Your task to perform on an android device: turn notification dots off Image 0: 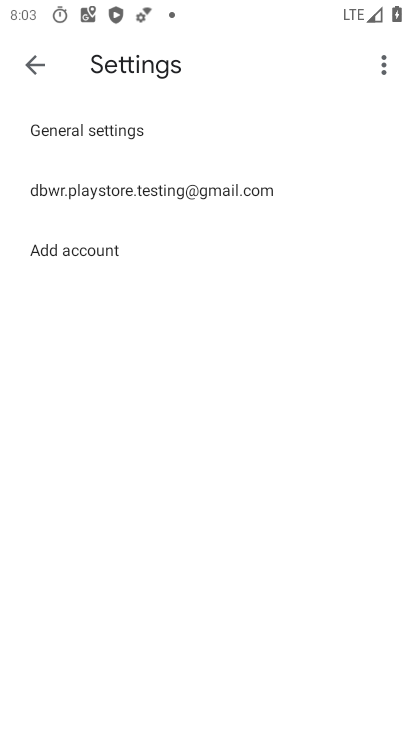
Step 0: press home button
Your task to perform on an android device: turn notification dots off Image 1: 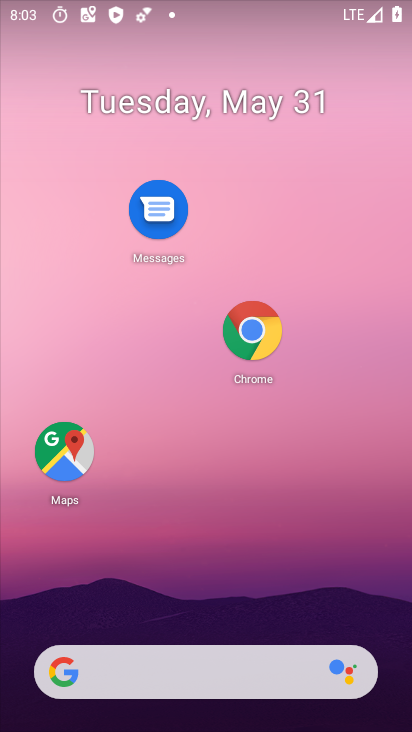
Step 1: drag from (190, 552) to (233, 71)
Your task to perform on an android device: turn notification dots off Image 2: 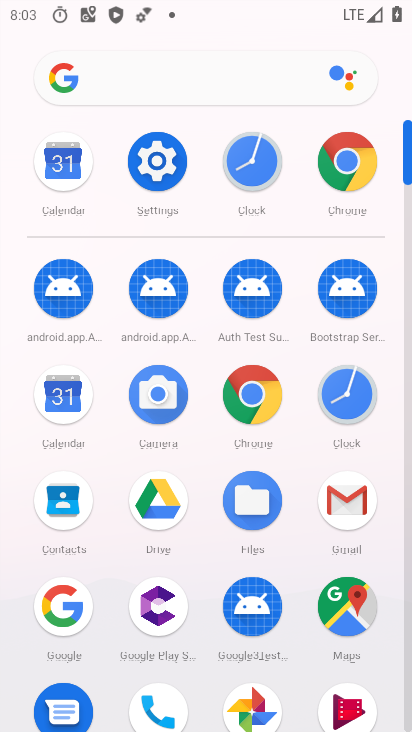
Step 2: click (165, 173)
Your task to perform on an android device: turn notification dots off Image 3: 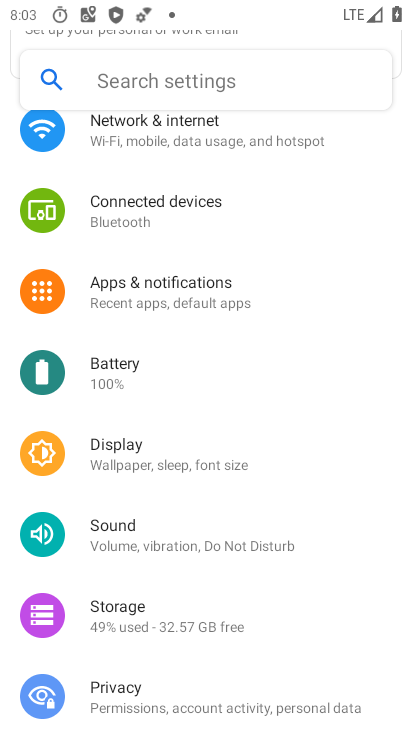
Step 3: click (158, 309)
Your task to perform on an android device: turn notification dots off Image 4: 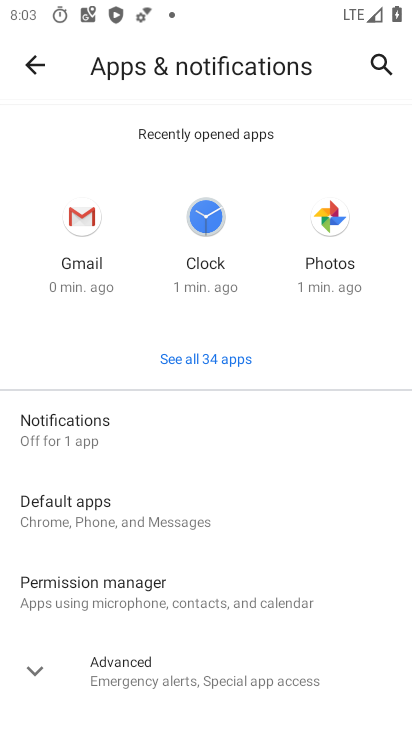
Step 4: click (81, 444)
Your task to perform on an android device: turn notification dots off Image 5: 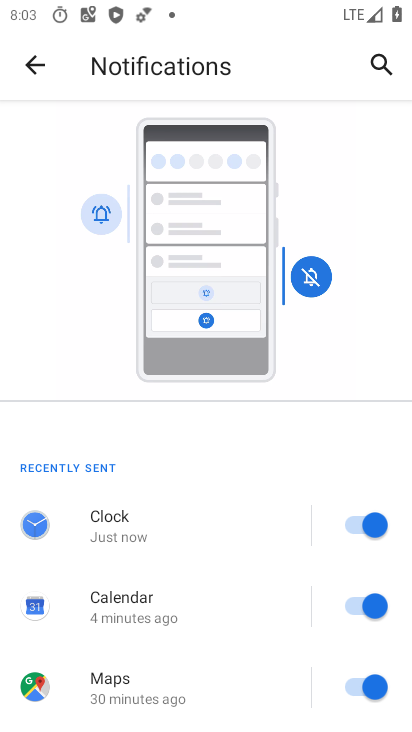
Step 5: drag from (182, 609) to (199, 202)
Your task to perform on an android device: turn notification dots off Image 6: 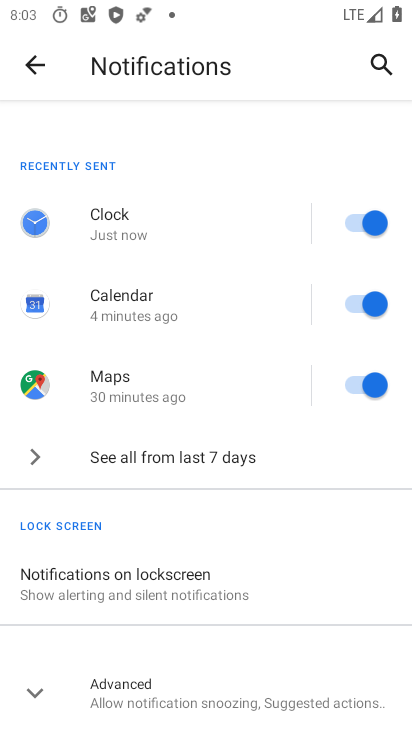
Step 6: click (178, 700)
Your task to perform on an android device: turn notification dots off Image 7: 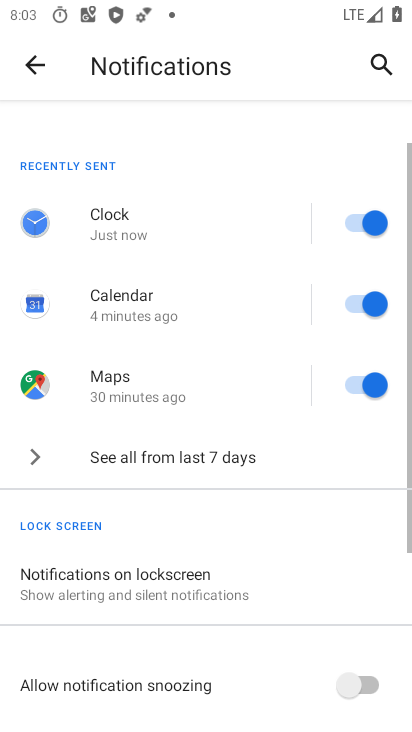
Step 7: drag from (172, 693) to (184, 274)
Your task to perform on an android device: turn notification dots off Image 8: 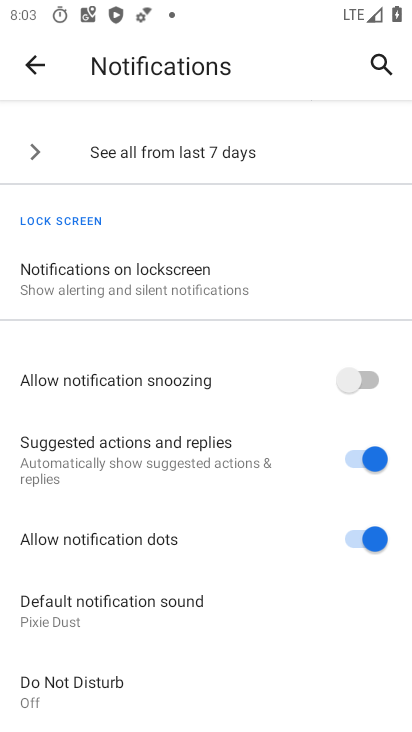
Step 8: click (346, 537)
Your task to perform on an android device: turn notification dots off Image 9: 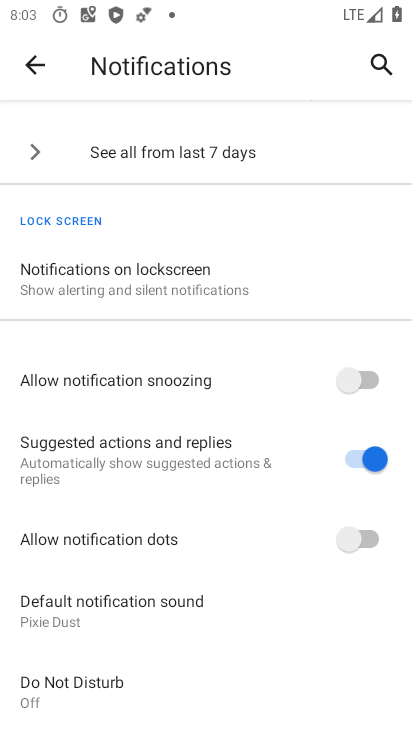
Step 9: task complete